Your task to perform on an android device: Turn off the flashlight Image 0: 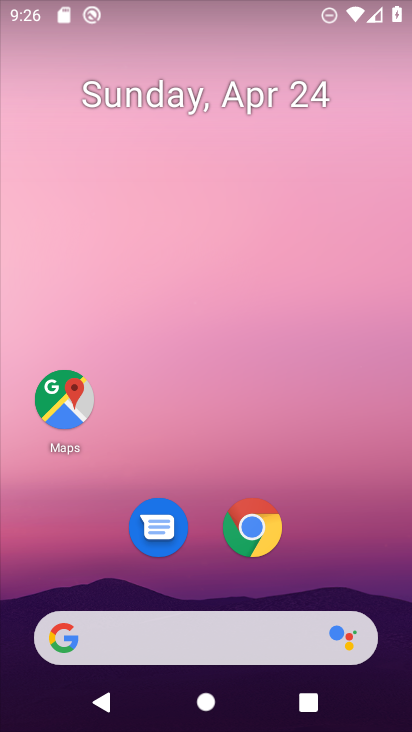
Step 0: drag from (379, 560) to (223, 0)
Your task to perform on an android device: Turn off the flashlight Image 1: 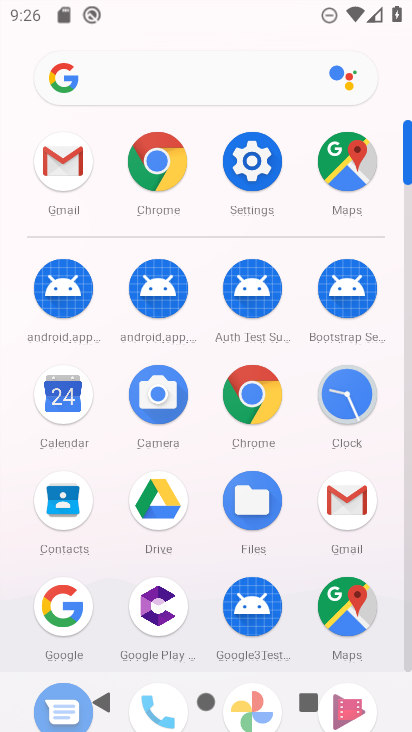
Step 1: click (243, 180)
Your task to perform on an android device: Turn off the flashlight Image 2: 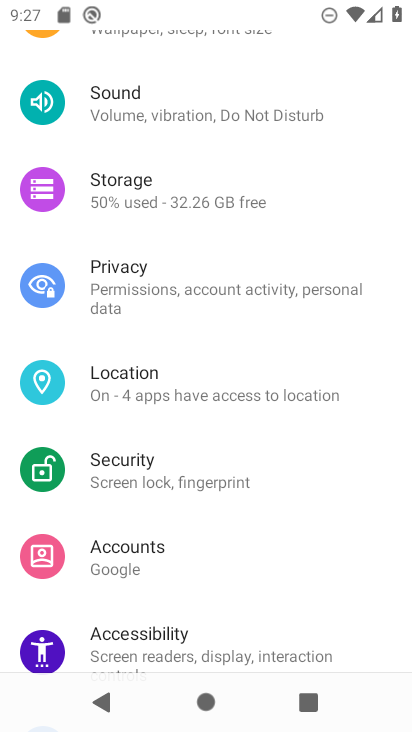
Step 2: task complete